Your task to perform on an android device: turn off javascript in the chrome app Image 0: 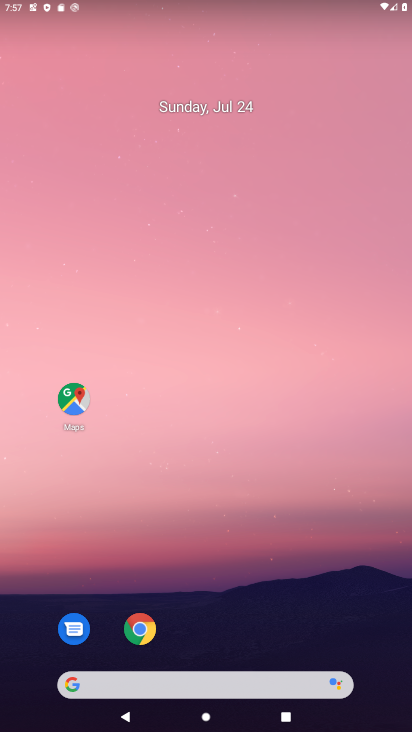
Step 0: drag from (253, 692) to (296, 141)
Your task to perform on an android device: turn off javascript in the chrome app Image 1: 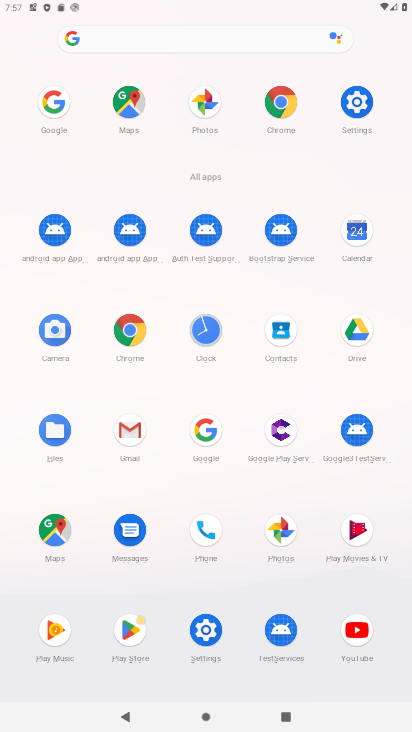
Step 1: click (285, 125)
Your task to perform on an android device: turn off javascript in the chrome app Image 2: 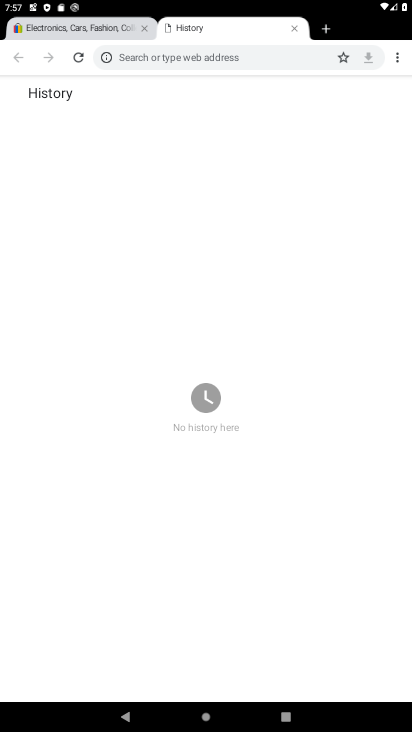
Step 2: click (399, 57)
Your task to perform on an android device: turn off javascript in the chrome app Image 3: 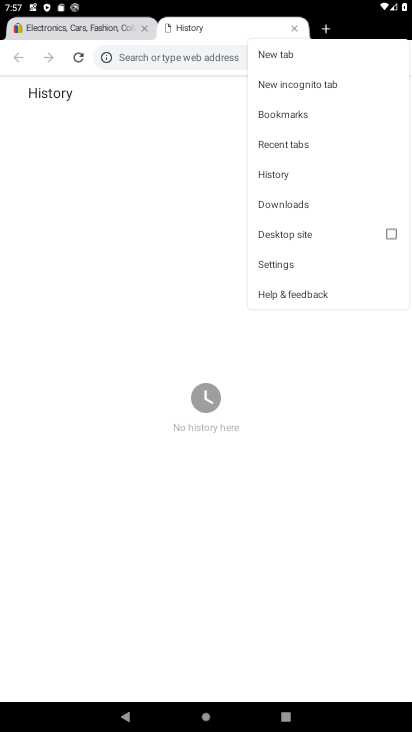
Step 3: click (294, 267)
Your task to perform on an android device: turn off javascript in the chrome app Image 4: 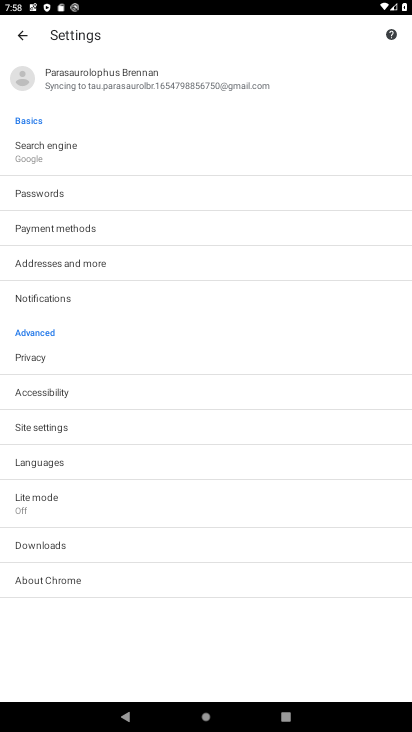
Step 4: click (51, 436)
Your task to perform on an android device: turn off javascript in the chrome app Image 5: 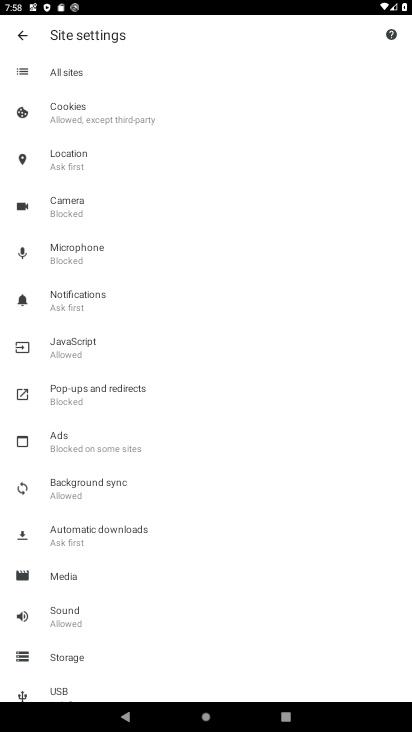
Step 5: click (90, 348)
Your task to perform on an android device: turn off javascript in the chrome app Image 6: 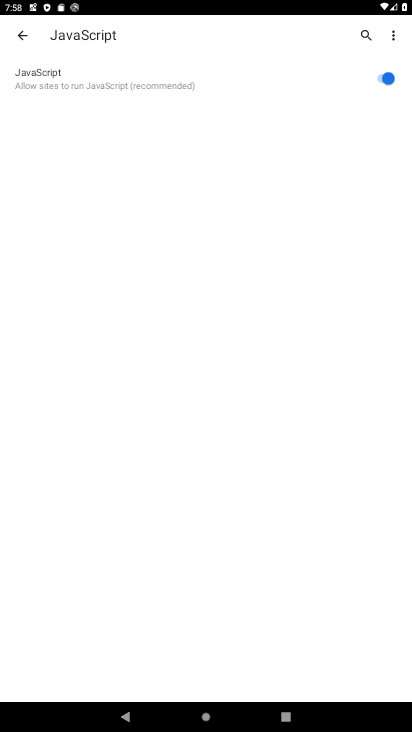
Step 6: click (382, 79)
Your task to perform on an android device: turn off javascript in the chrome app Image 7: 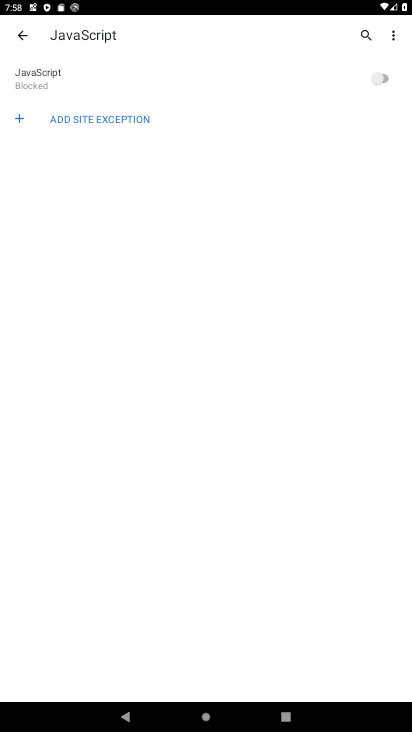
Step 7: task complete